Your task to perform on an android device: delete a single message in the gmail app Image 0: 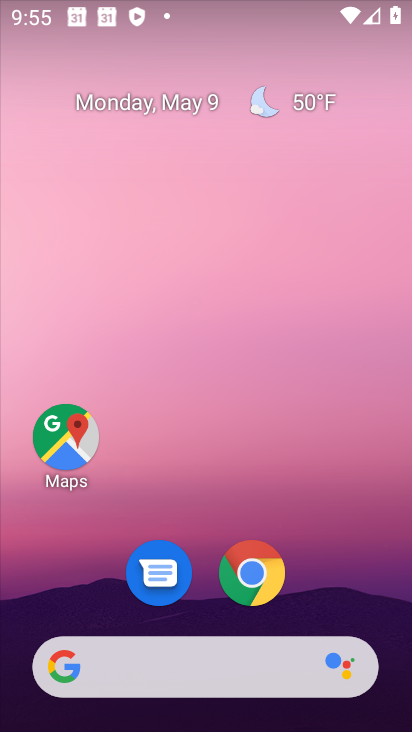
Step 0: drag from (339, 596) to (227, 159)
Your task to perform on an android device: delete a single message in the gmail app Image 1: 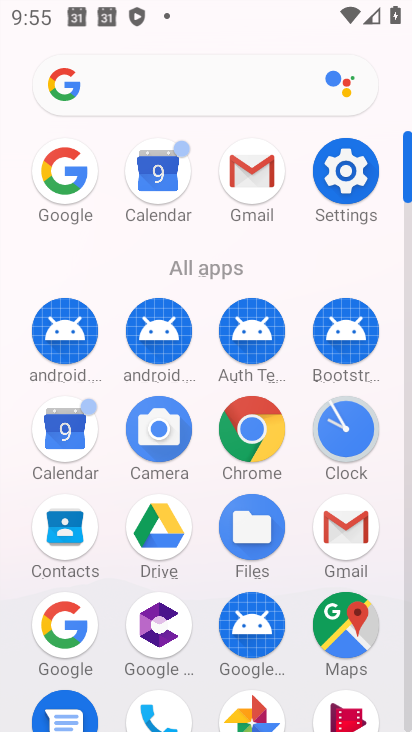
Step 1: click (270, 179)
Your task to perform on an android device: delete a single message in the gmail app Image 2: 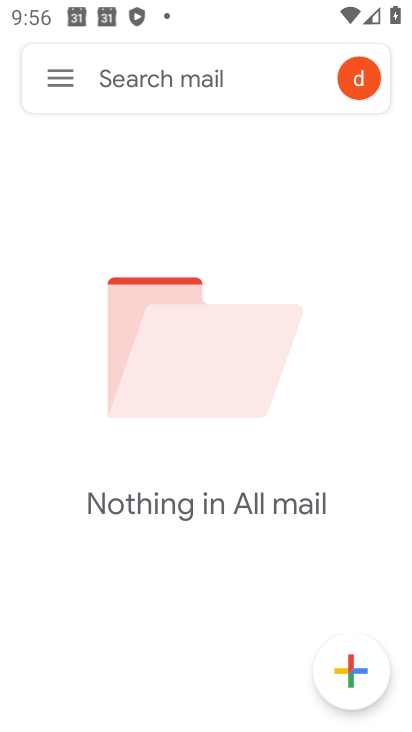
Step 2: click (69, 68)
Your task to perform on an android device: delete a single message in the gmail app Image 3: 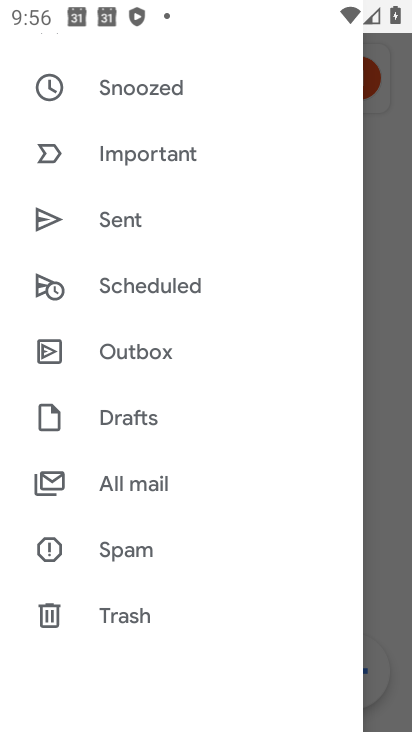
Step 3: click (382, 375)
Your task to perform on an android device: delete a single message in the gmail app Image 4: 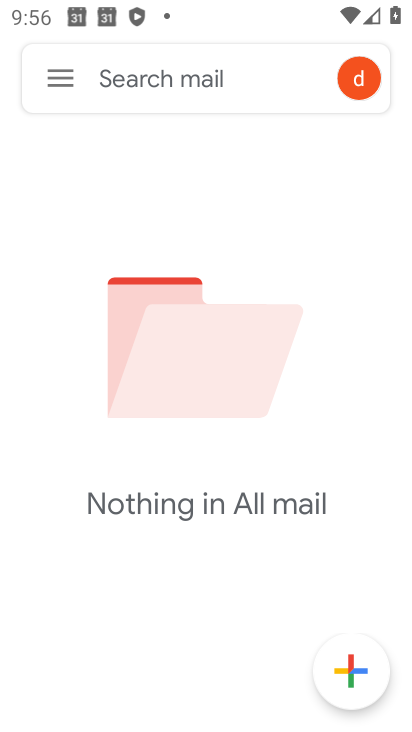
Step 4: task complete